Your task to perform on an android device: turn smart compose on in the gmail app Image 0: 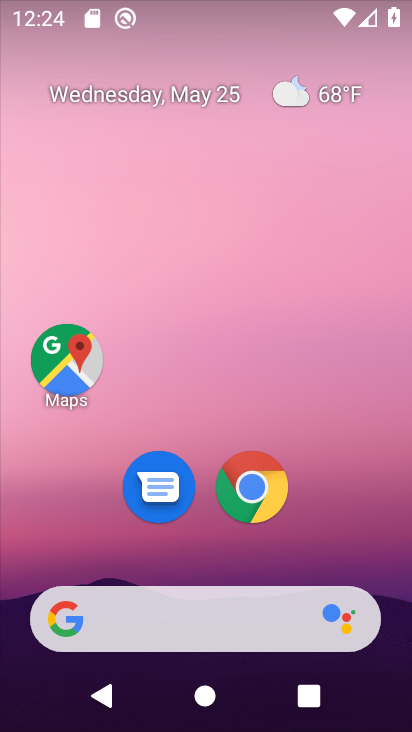
Step 0: drag from (221, 555) to (285, 105)
Your task to perform on an android device: turn smart compose on in the gmail app Image 1: 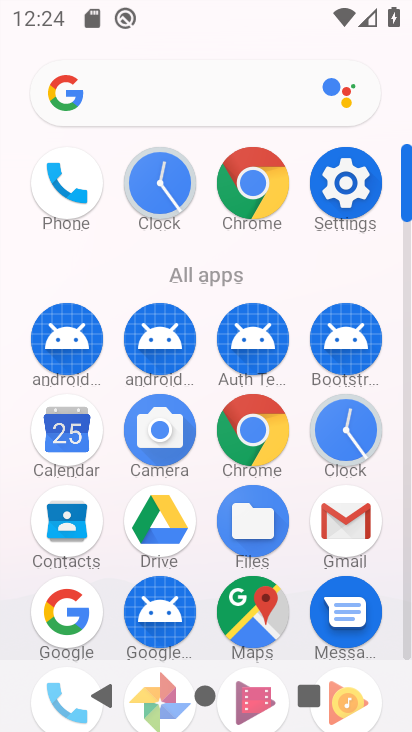
Step 1: click (341, 508)
Your task to perform on an android device: turn smart compose on in the gmail app Image 2: 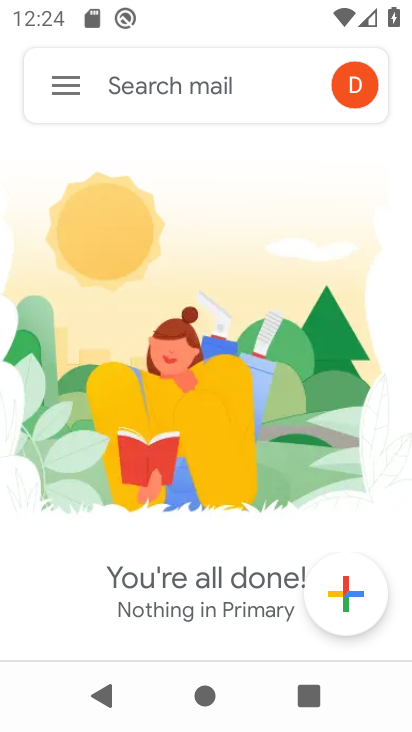
Step 2: click (48, 78)
Your task to perform on an android device: turn smart compose on in the gmail app Image 3: 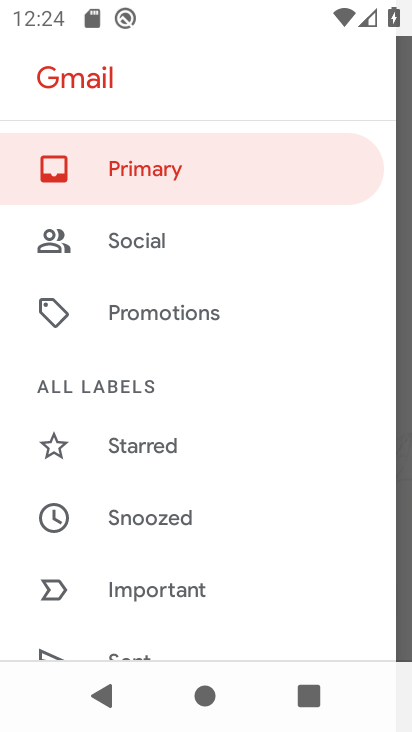
Step 3: drag from (132, 594) to (217, 129)
Your task to perform on an android device: turn smart compose on in the gmail app Image 4: 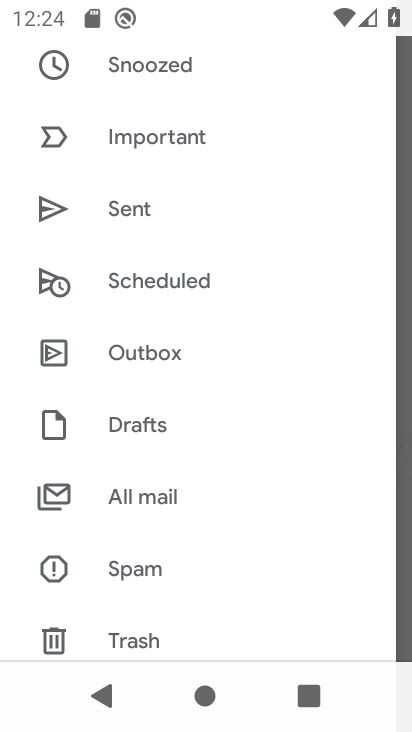
Step 4: drag from (152, 660) to (238, 138)
Your task to perform on an android device: turn smart compose on in the gmail app Image 5: 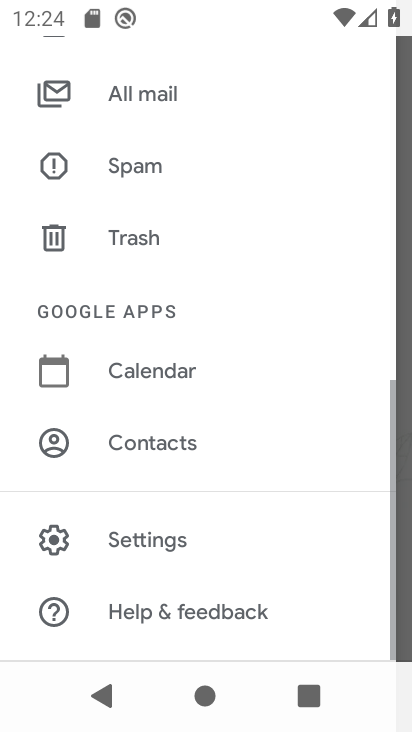
Step 5: click (142, 543)
Your task to perform on an android device: turn smart compose on in the gmail app Image 6: 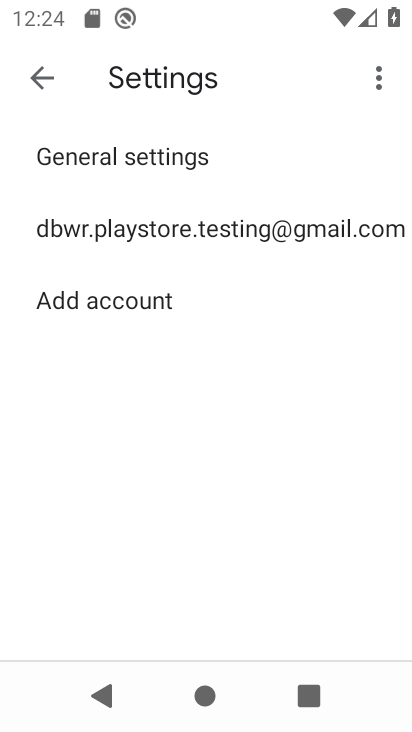
Step 6: click (145, 216)
Your task to perform on an android device: turn smart compose on in the gmail app Image 7: 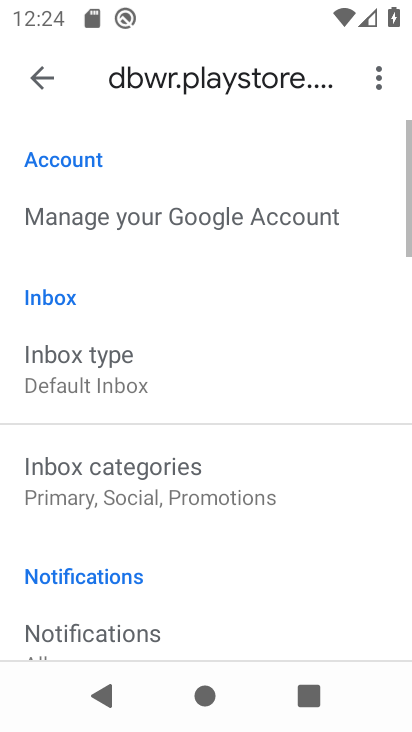
Step 7: task complete